Your task to perform on an android device: Open the web browser Image 0: 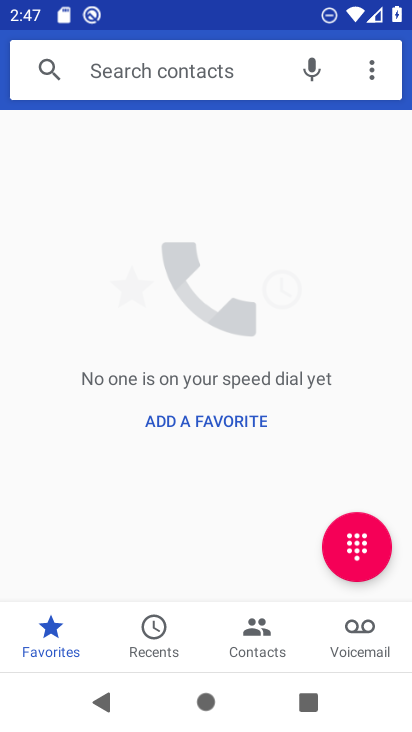
Step 0: press back button
Your task to perform on an android device: Open the web browser Image 1: 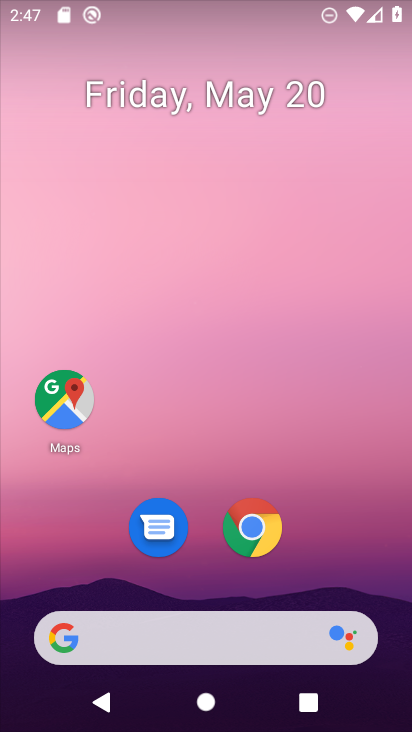
Step 1: click (251, 521)
Your task to perform on an android device: Open the web browser Image 2: 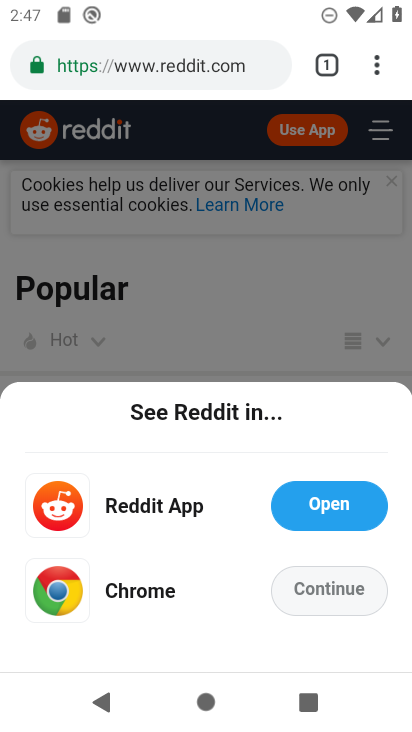
Step 2: task complete